Your task to perform on an android device: turn on sleep mode Image 0: 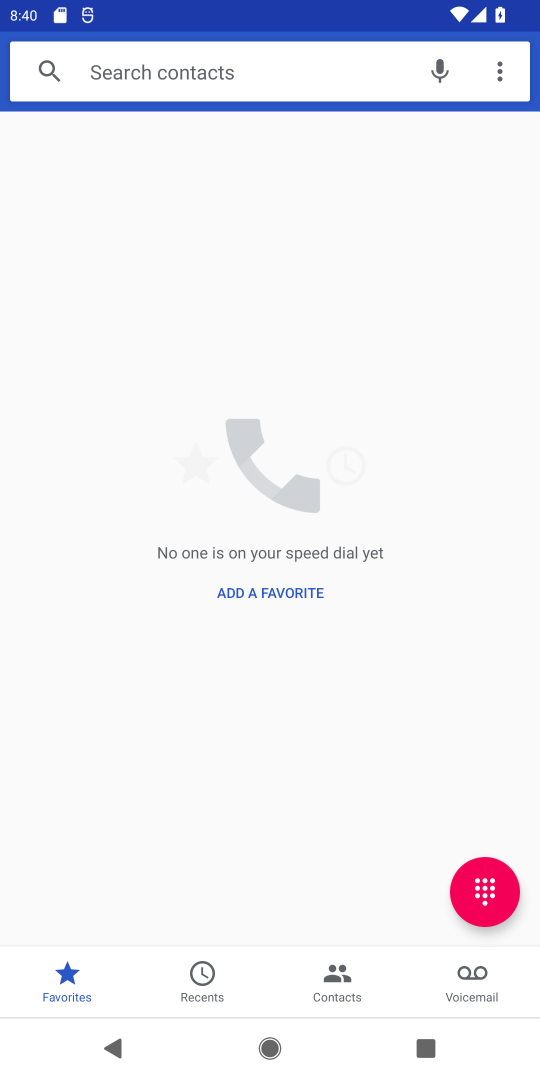
Step 0: press back button
Your task to perform on an android device: turn on sleep mode Image 1: 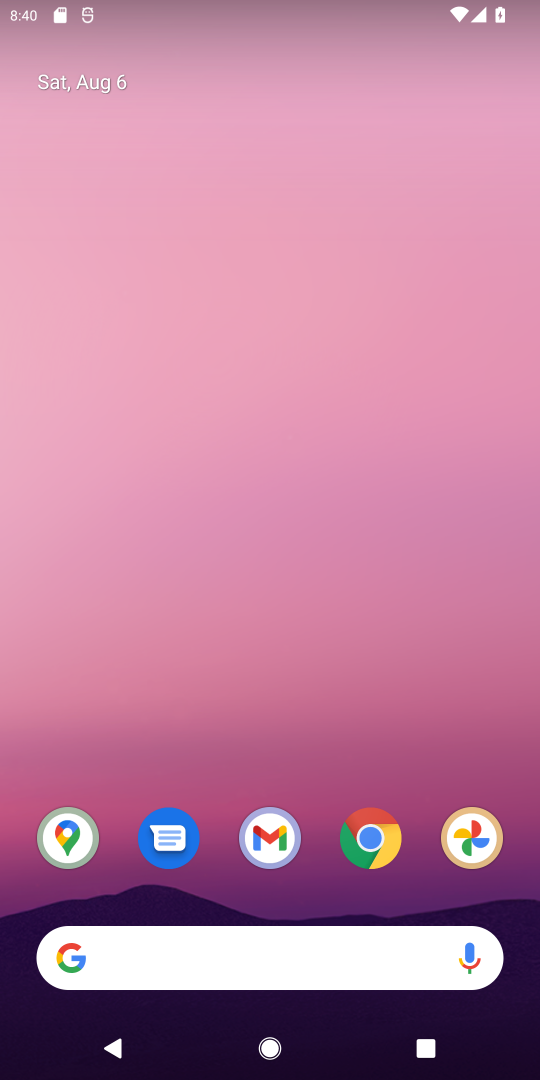
Step 1: drag from (263, 581) to (316, 244)
Your task to perform on an android device: turn on sleep mode Image 2: 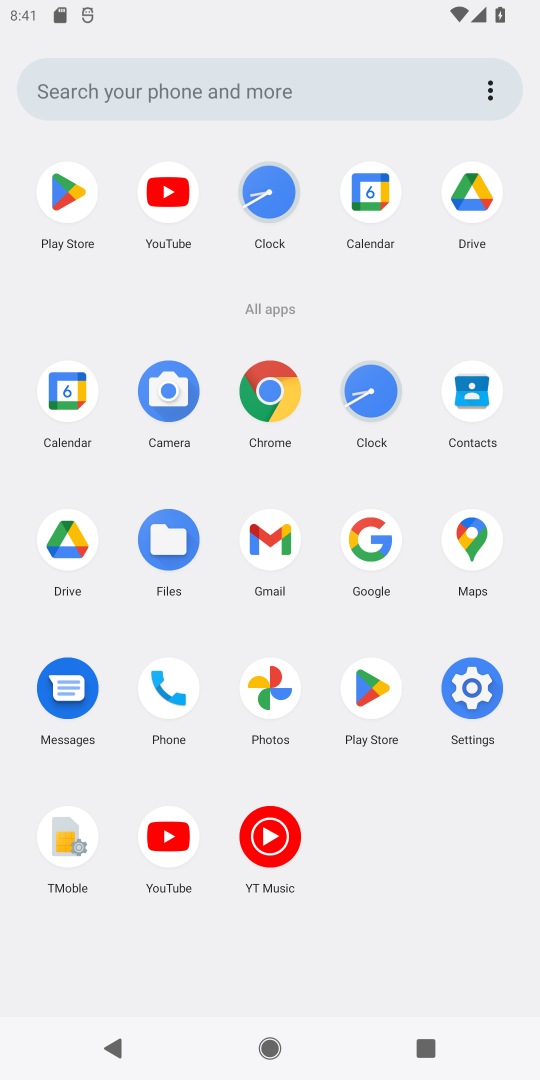
Step 2: click (467, 677)
Your task to perform on an android device: turn on sleep mode Image 3: 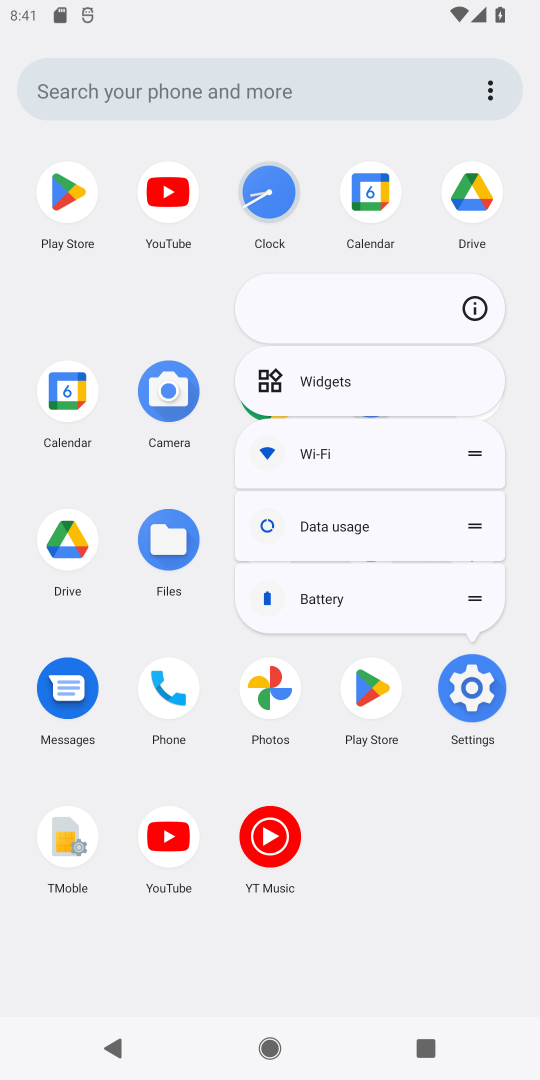
Step 3: click (467, 677)
Your task to perform on an android device: turn on sleep mode Image 4: 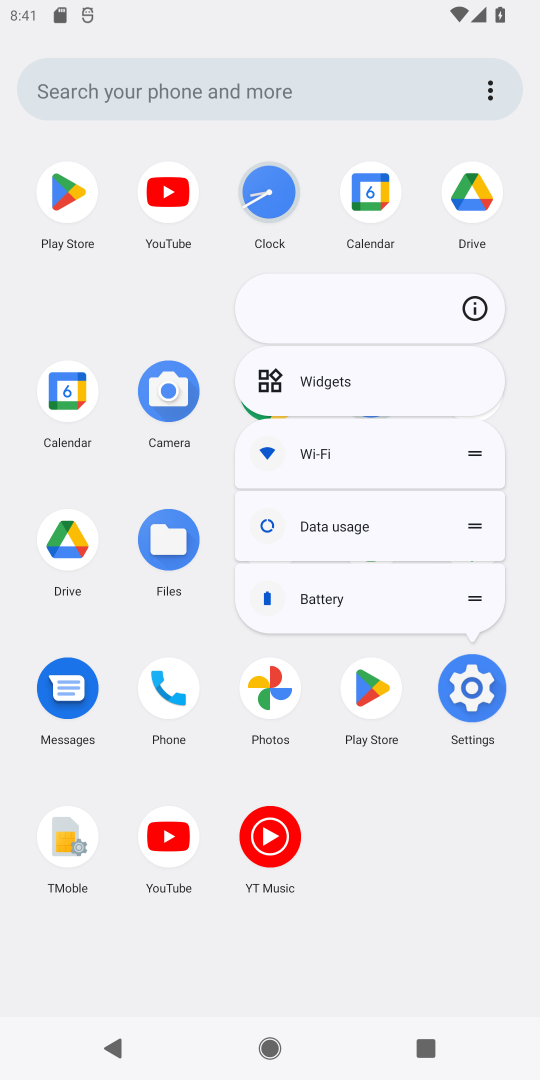
Step 4: click (467, 677)
Your task to perform on an android device: turn on sleep mode Image 5: 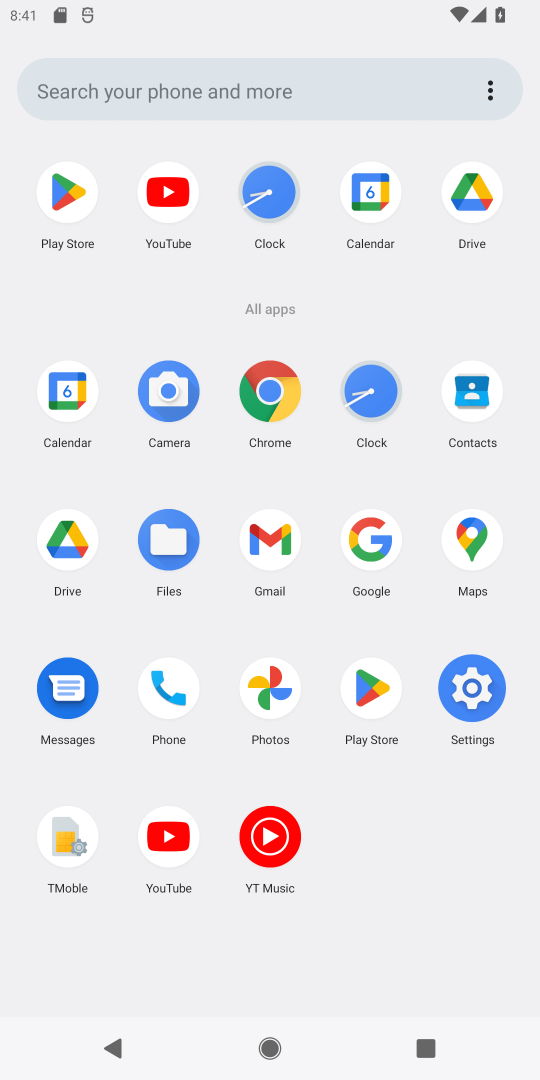
Step 5: click (469, 674)
Your task to perform on an android device: turn on sleep mode Image 6: 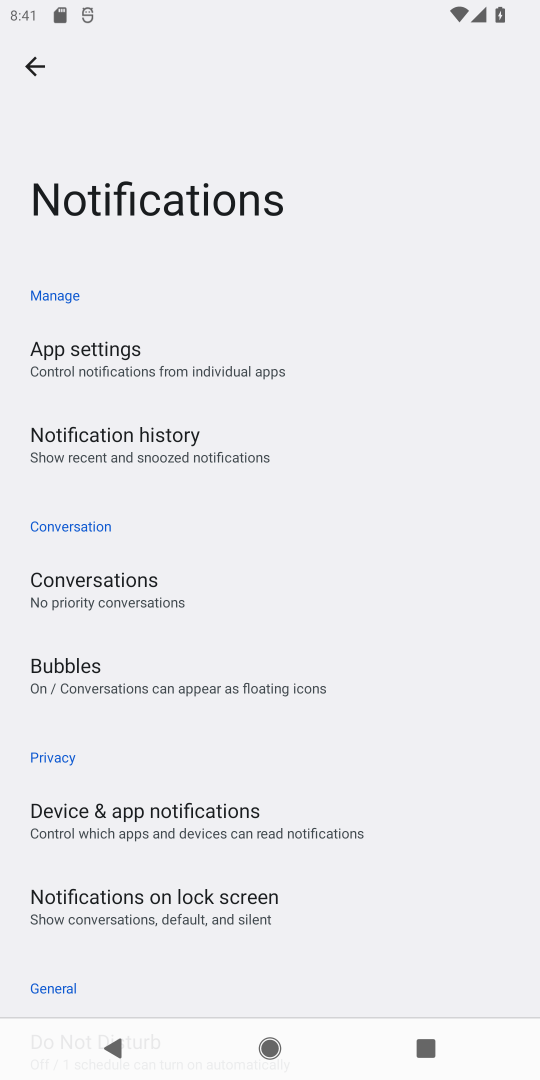
Step 6: click (32, 67)
Your task to perform on an android device: turn on sleep mode Image 7: 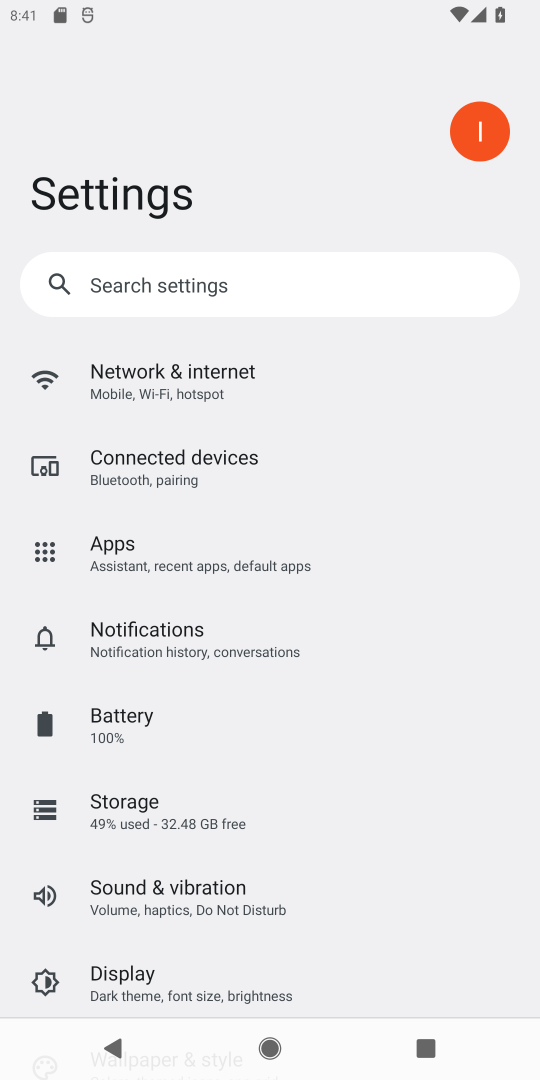
Step 7: click (131, 971)
Your task to perform on an android device: turn on sleep mode Image 8: 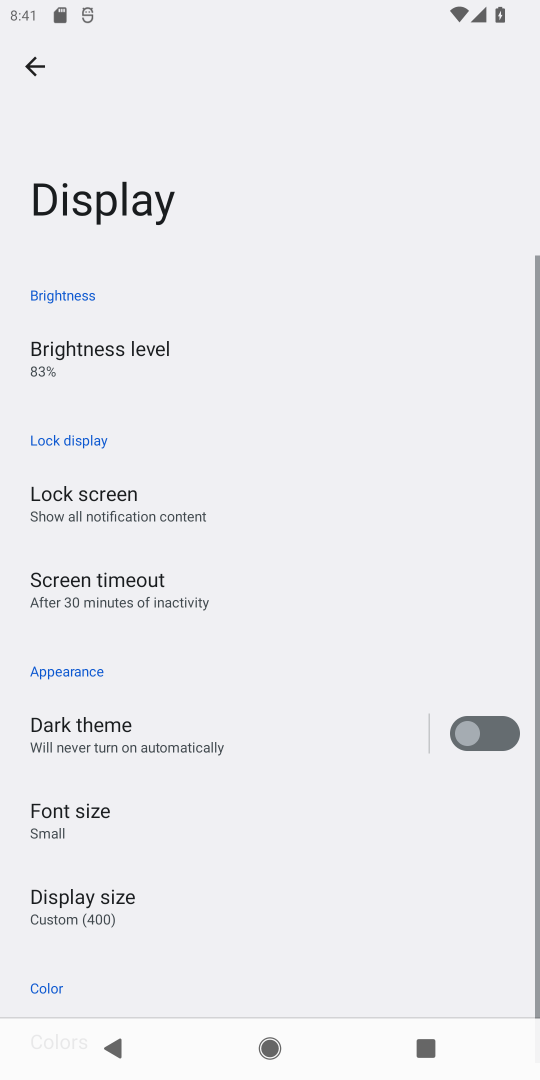
Step 8: task complete